Your task to perform on an android device: Go to Wikipedia Image 0: 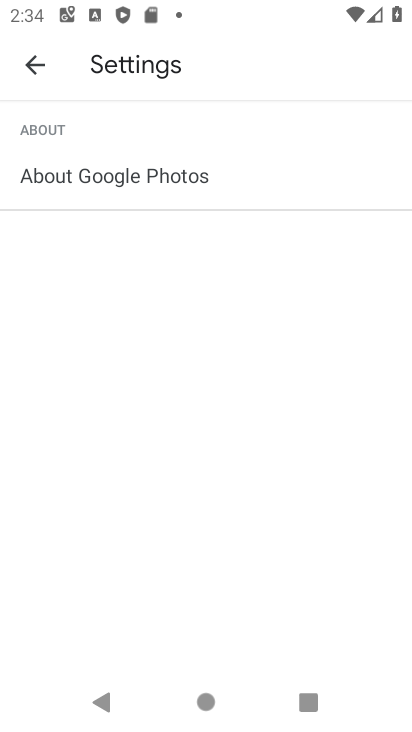
Step 0: press home button
Your task to perform on an android device: Go to Wikipedia Image 1: 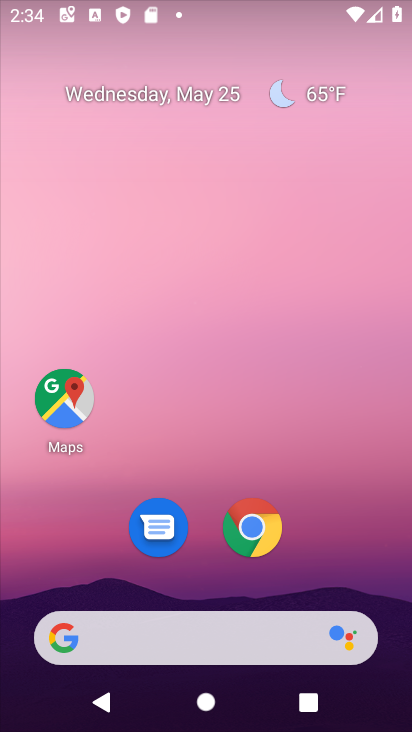
Step 1: drag from (330, 631) to (239, 0)
Your task to perform on an android device: Go to Wikipedia Image 2: 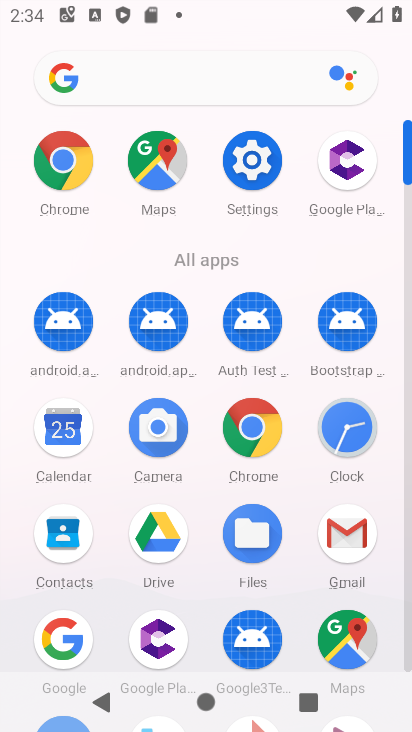
Step 2: click (255, 414)
Your task to perform on an android device: Go to Wikipedia Image 3: 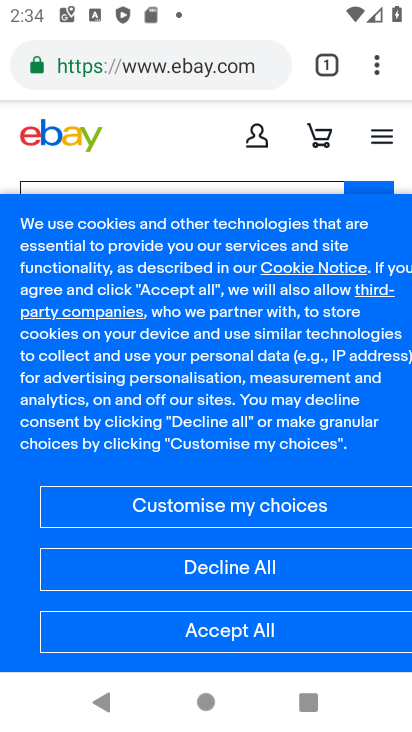
Step 3: click (143, 56)
Your task to perform on an android device: Go to Wikipedia Image 4: 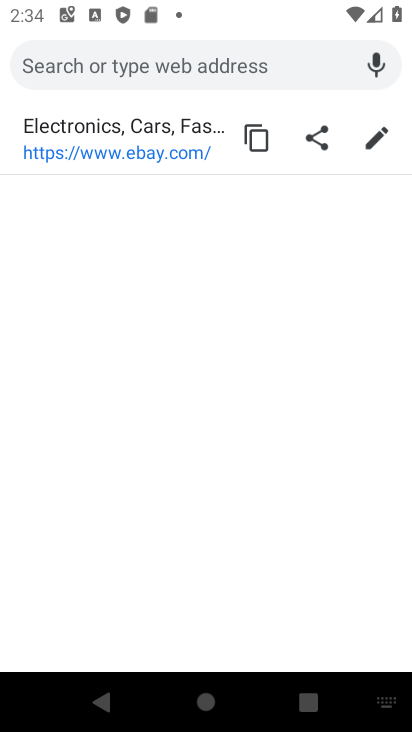
Step 4: type "wikipedia"
Your task to perform on an android device: Go to Wikipedia Image 5: 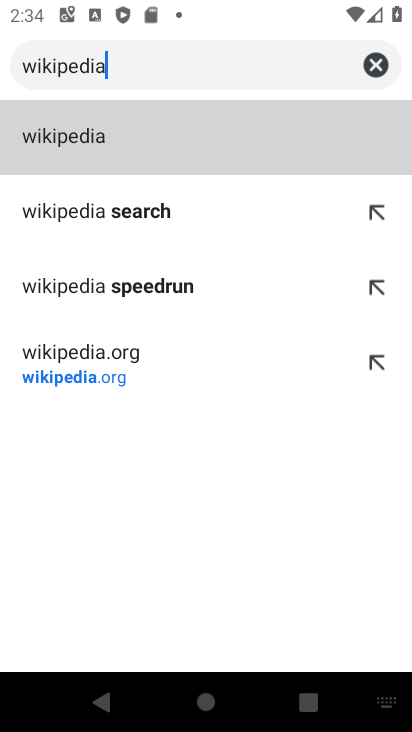
Step 5: click (176, 143)
Your task to perform on an android device: Go to Wikipedia Image 6: 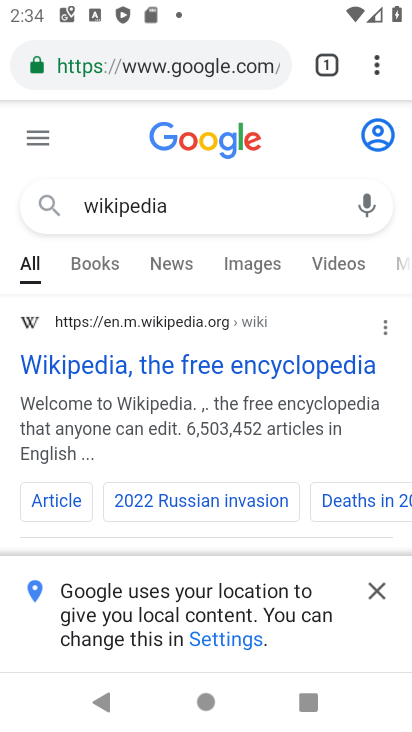
Step 6: task complete